Your task to perform on an android device: Toggle the flashlight Image 0: 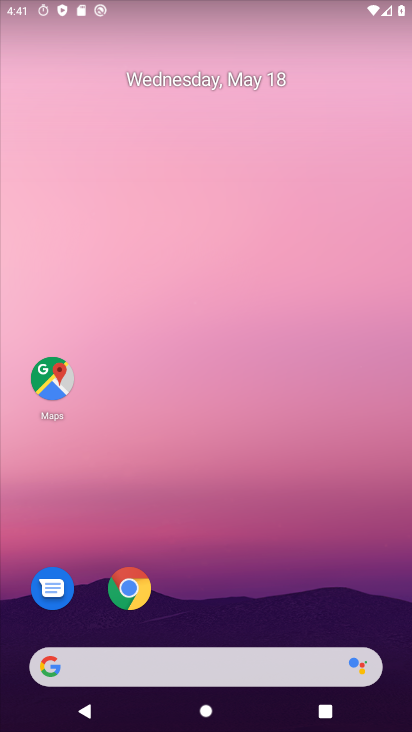
Step 0: drag from (248, 7) to (218, 402)
Your task to perform on an android device: Toggle the flashlight Image 1: 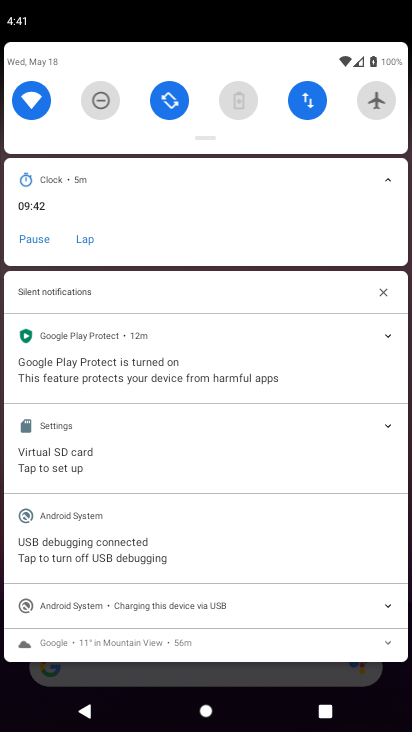
Step 1: task complete